Your task to perform on an android device: see sites visited before in the chrome app Image 0: 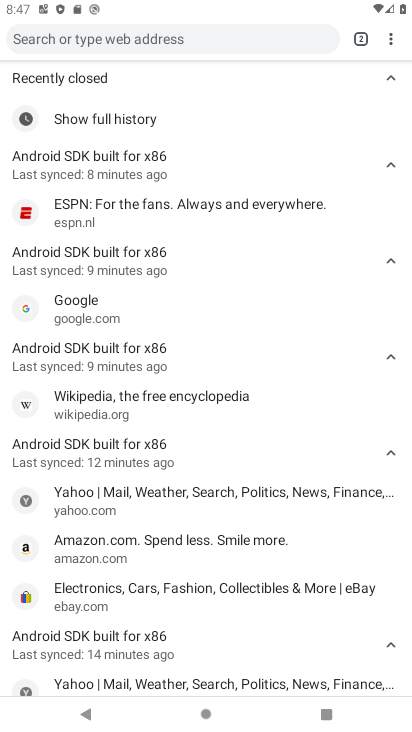
Step 0: click (392, 44)
Your task to perform on an android device: see sites visited before in the chrome app Image 1: 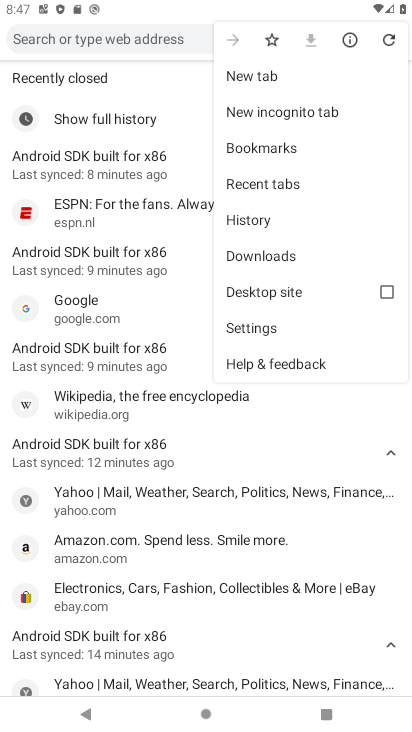
Step 1: click (257, 183)
Your task to perform on an android device: see sites visited before in the chrome app Image 2: 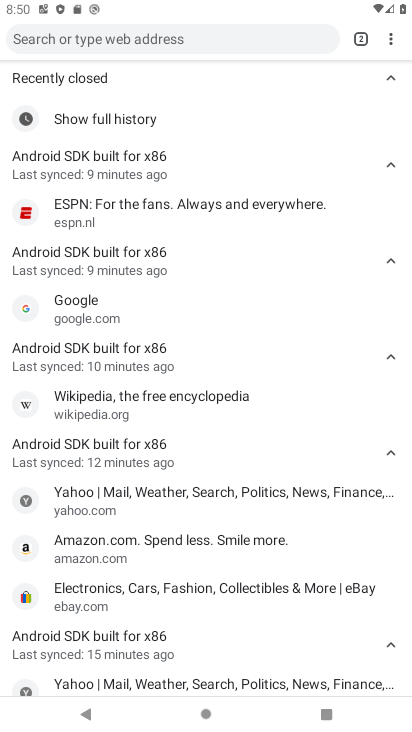
Step 2: task complete